Your task to perform on an android device: Open the stopwatch Image 0: 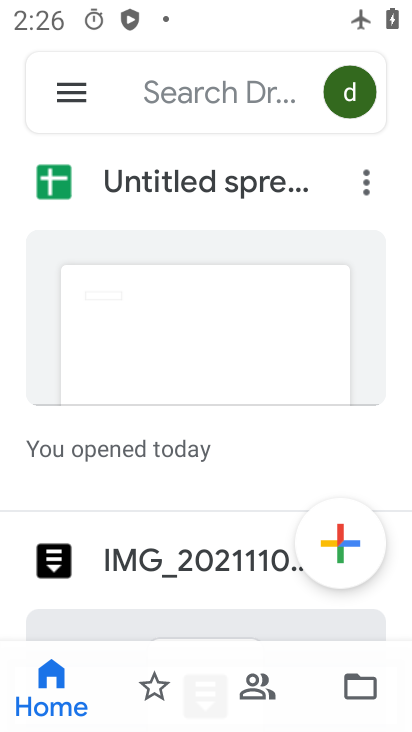
Step 0: press home button
Your task to perform on an android device: Open the stopwatch Image 1: 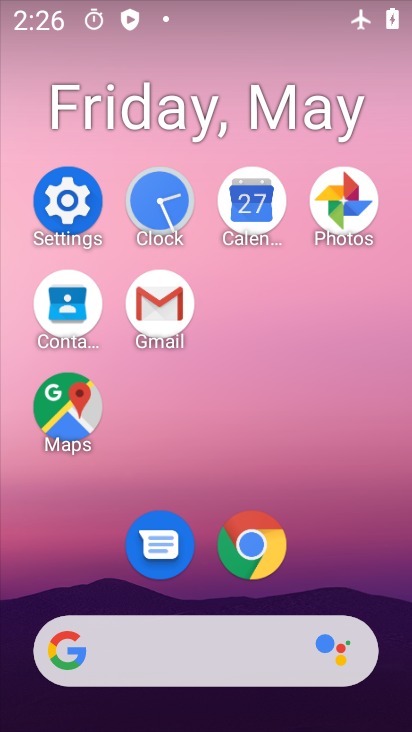
Step 1: click (150, 197)
Your task to perform on an android device: Open the stopwatch Image 2: 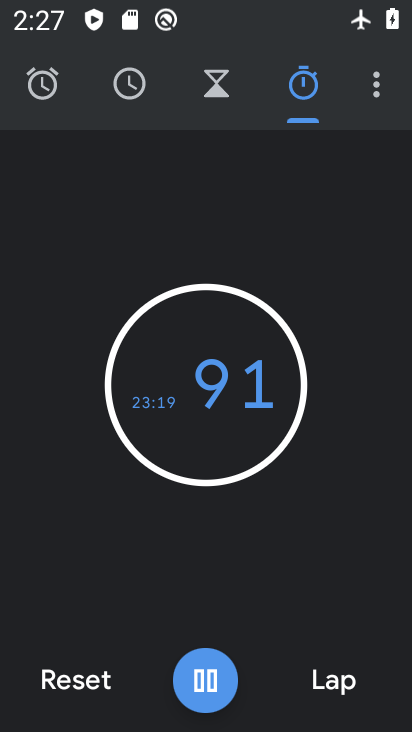
Step 2: task complete